Your task to perform on an android device: turn on translation in the chrome app Image 0: 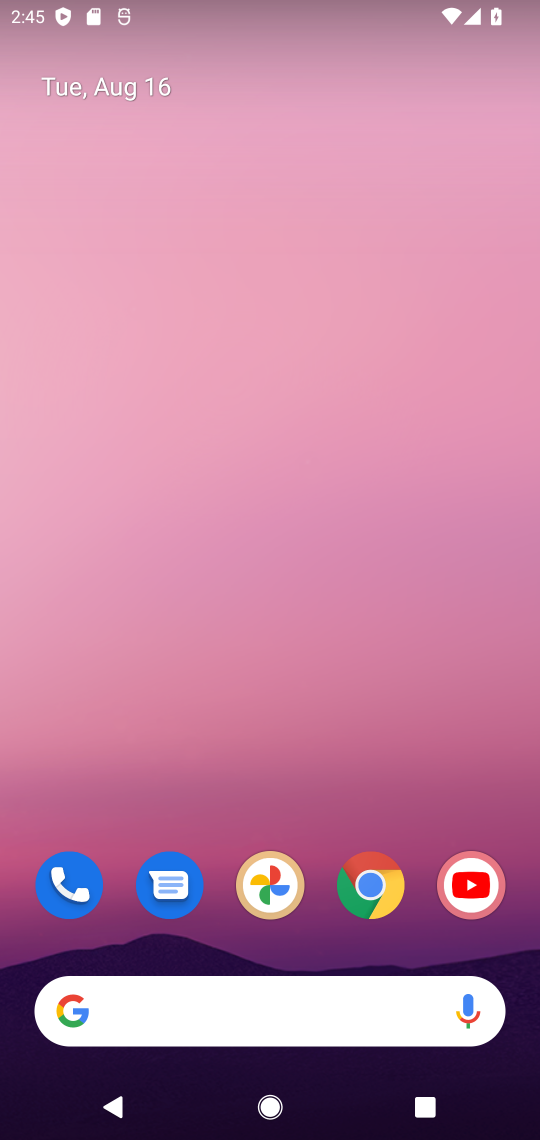
Step 0: drag from (254, 913) to (427, 148)
Your task to perform on an android device: turn on translation in the chrome app Image 1: 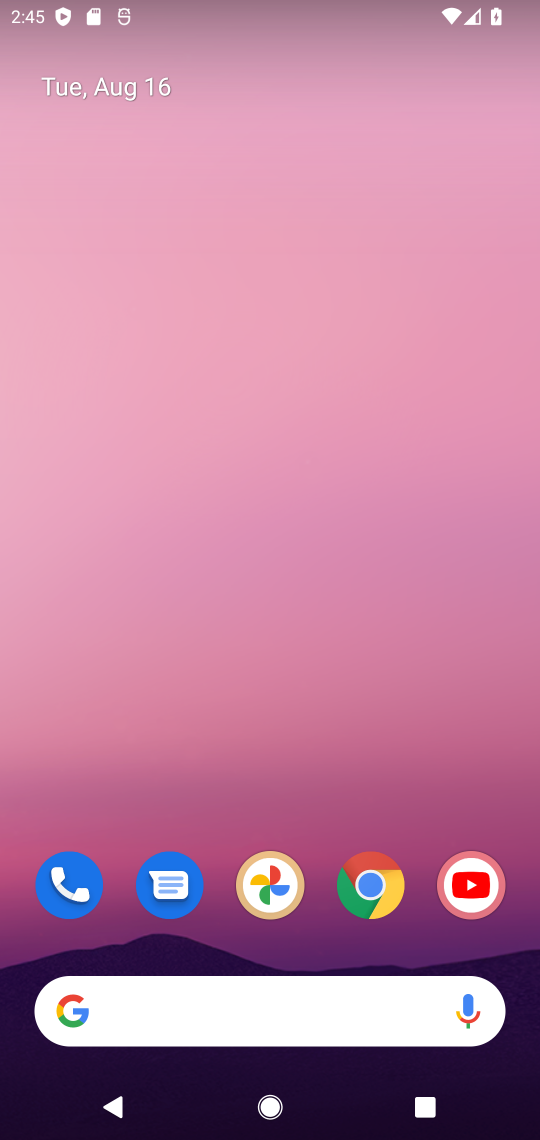
Step 1: drag from (336, 948) to (323, 270)
Your task to perform on an android device: turn on translation in the chrome app Image 2: 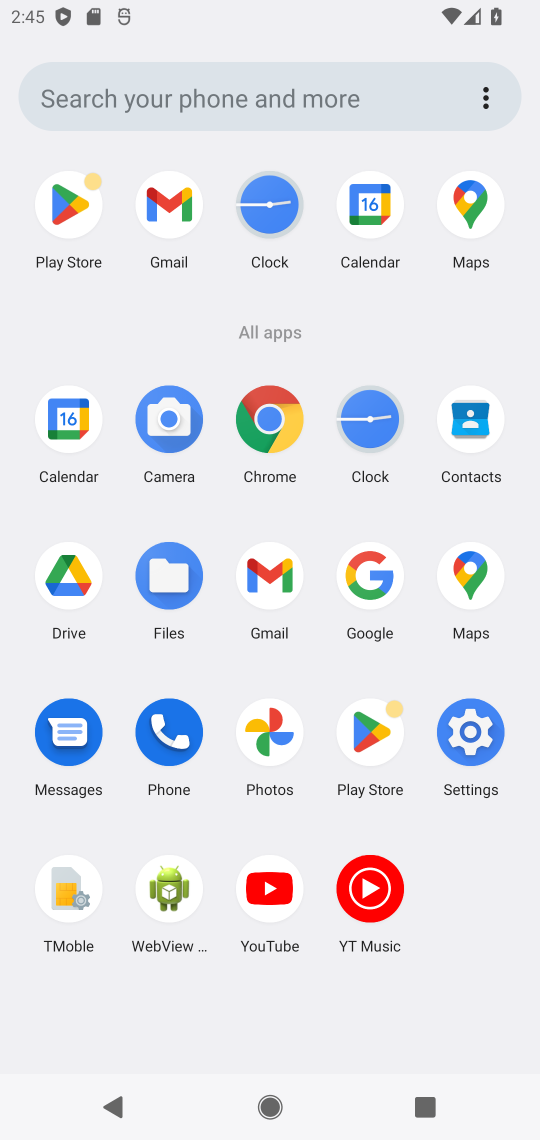
Step 2: click (260, 409)
Your task to perform on an android device: turn on translation in the chrome app Image 3: 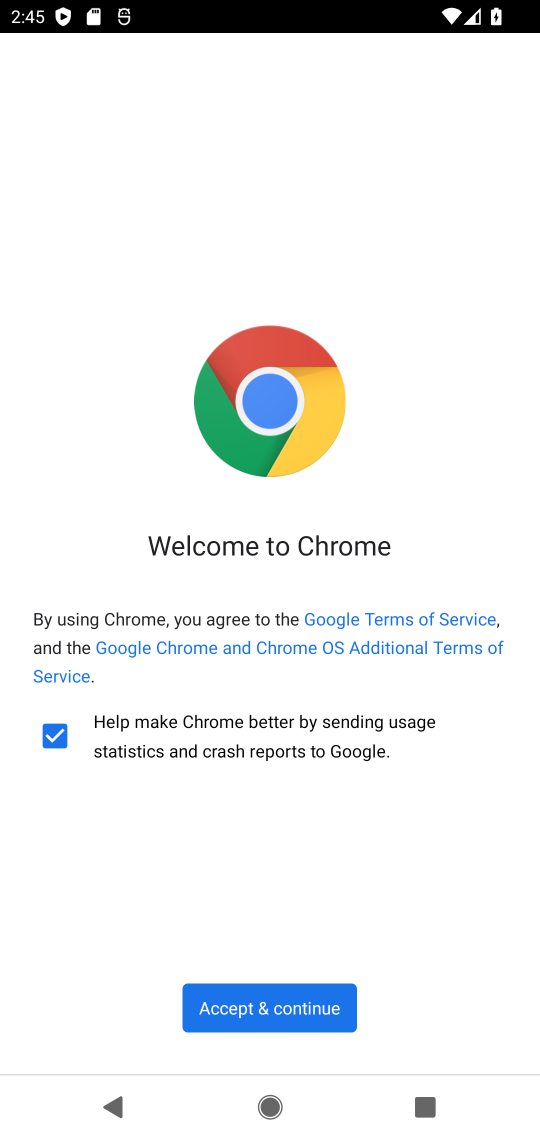
Step 3: click (279, 998)
Your task to perform on an android device: turn on translation in the chrome app Image 4: 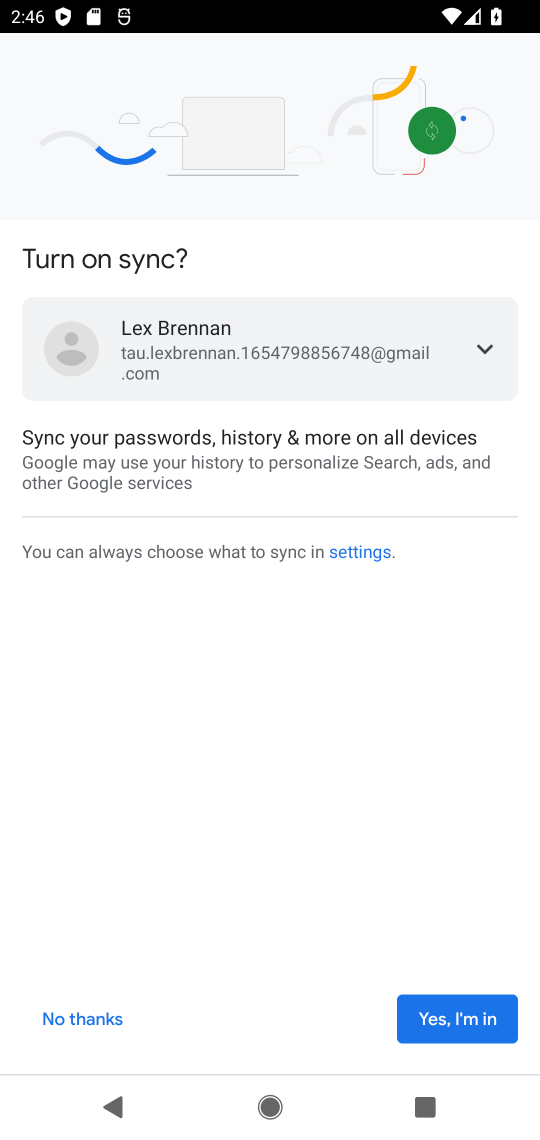
Step 4: click (468, 1004)
Your task to perform on an android device: turn on translation in the chrome app Image 5: 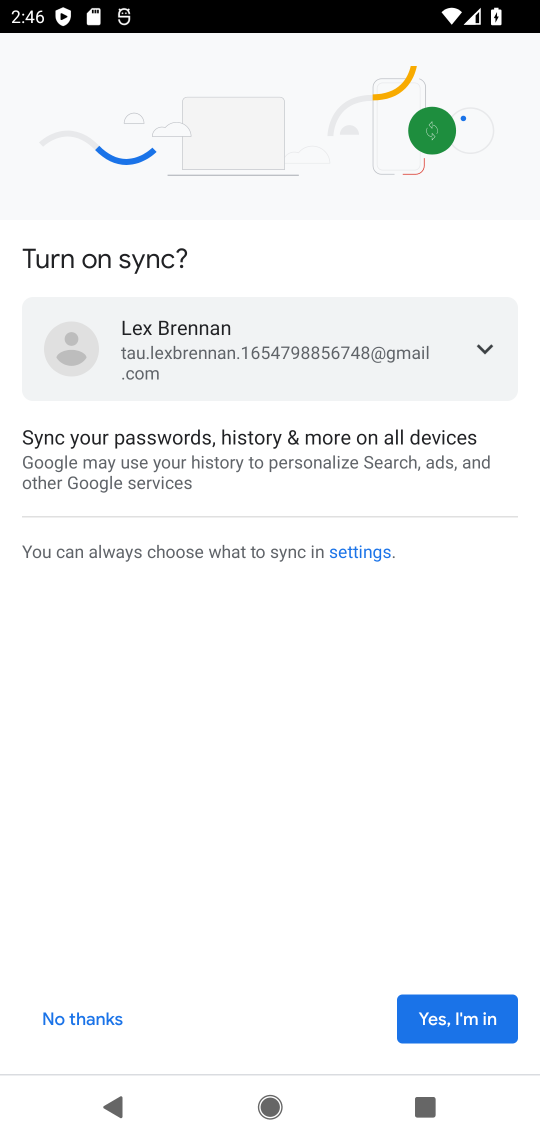
Step 5: click (451, 1019)
Your task to perform on an android device: turn on translation in the chrome app Image 6: 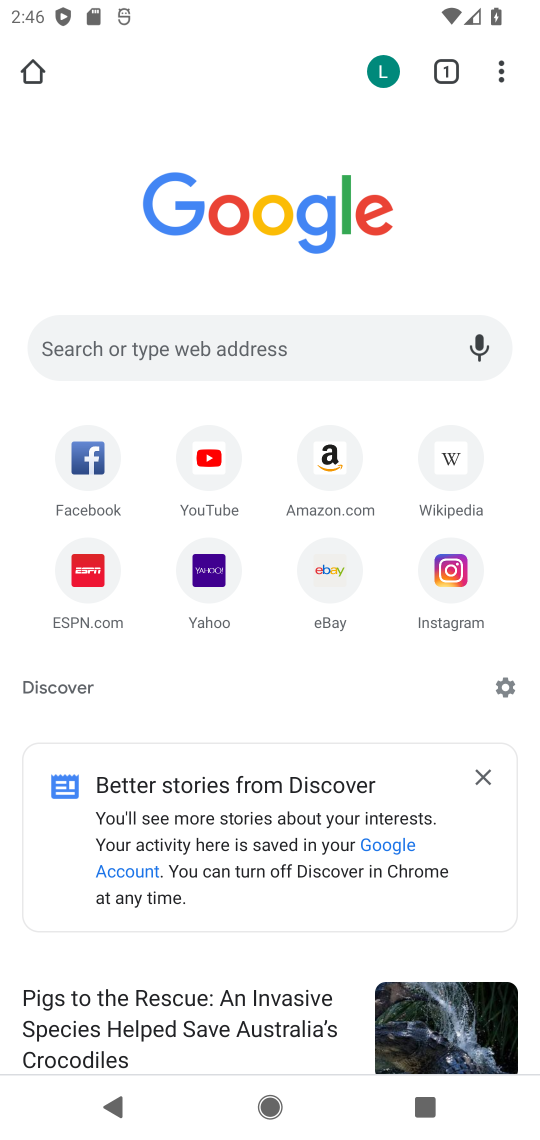
Step 6: click (496, 64)
Your task to perform on an android device: turn on translation in the chrome app Image 7: 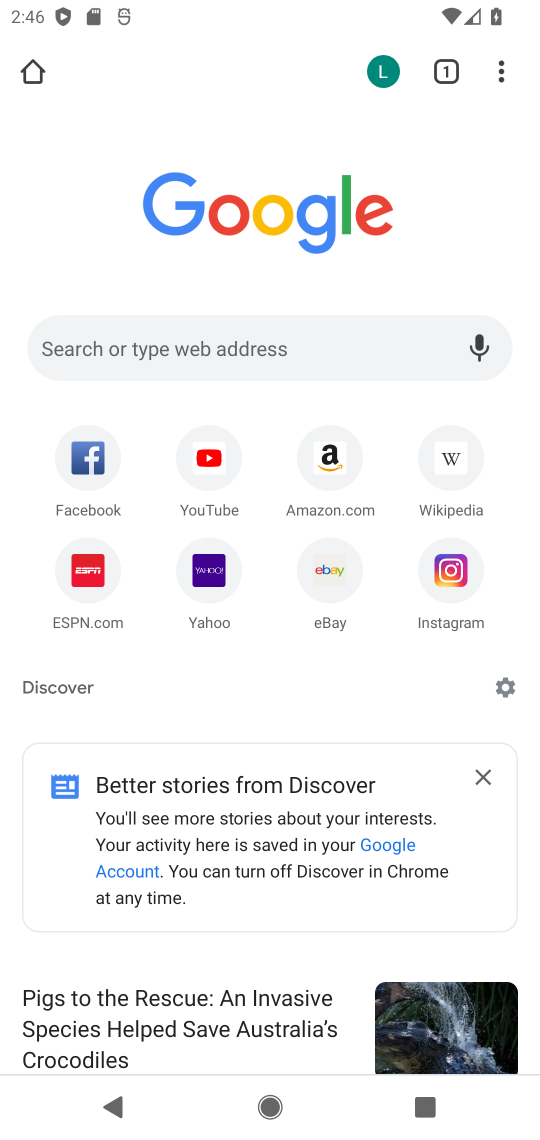
Step 7: click (497, 65)
Your task to perform on an android device: turn on translation in the chrome app Image 8: 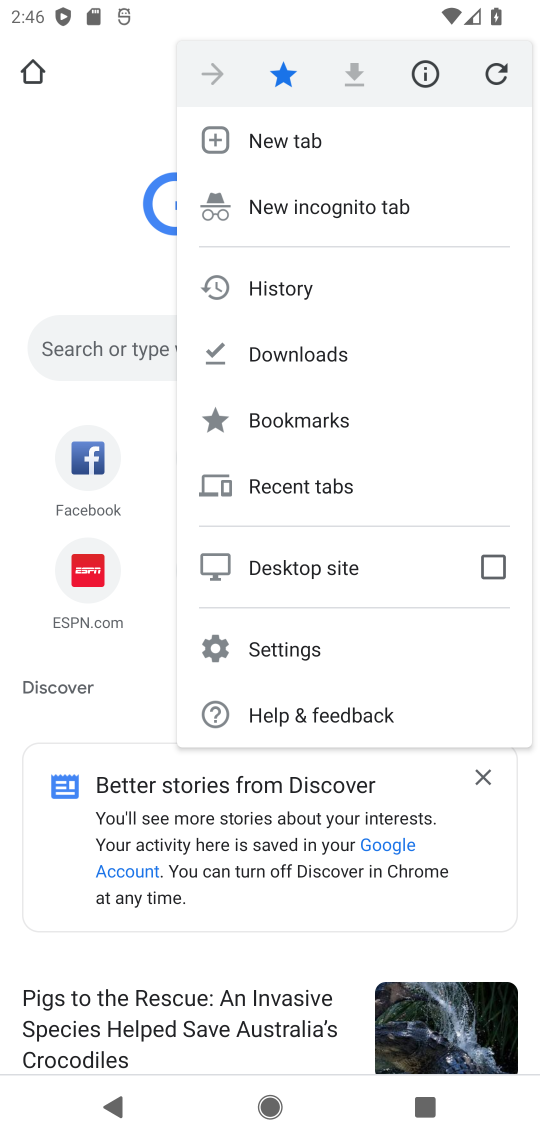
Step 8: click (292, 636)
Your task to perform on an android device: turn on translation in the chrome app Image 9: 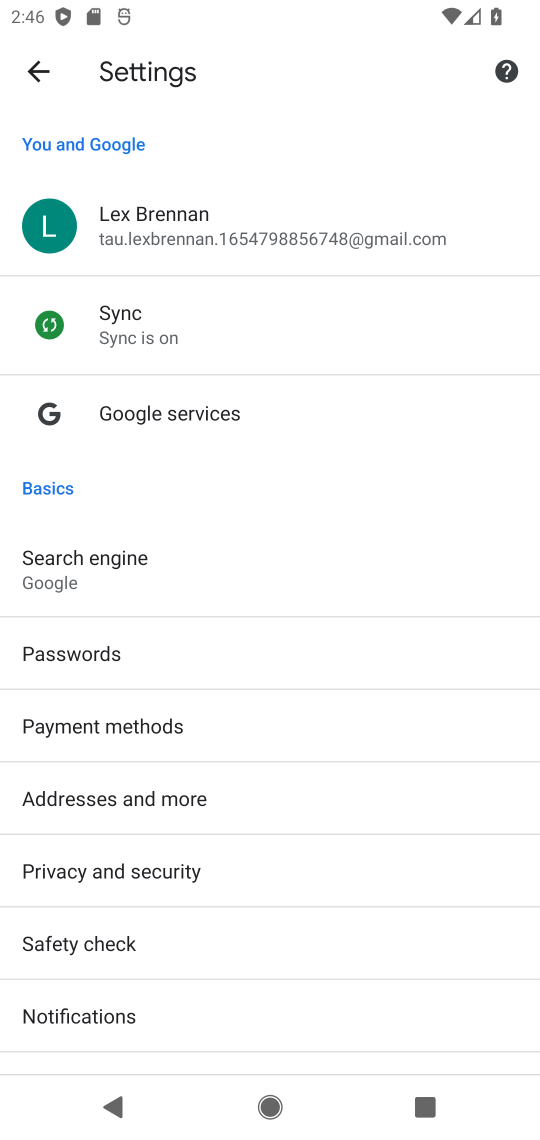
Step 9: drag from (117, 1003) to (537, 376)
Your task to perform on an android device: turn on translation in the chrome app Image 10: 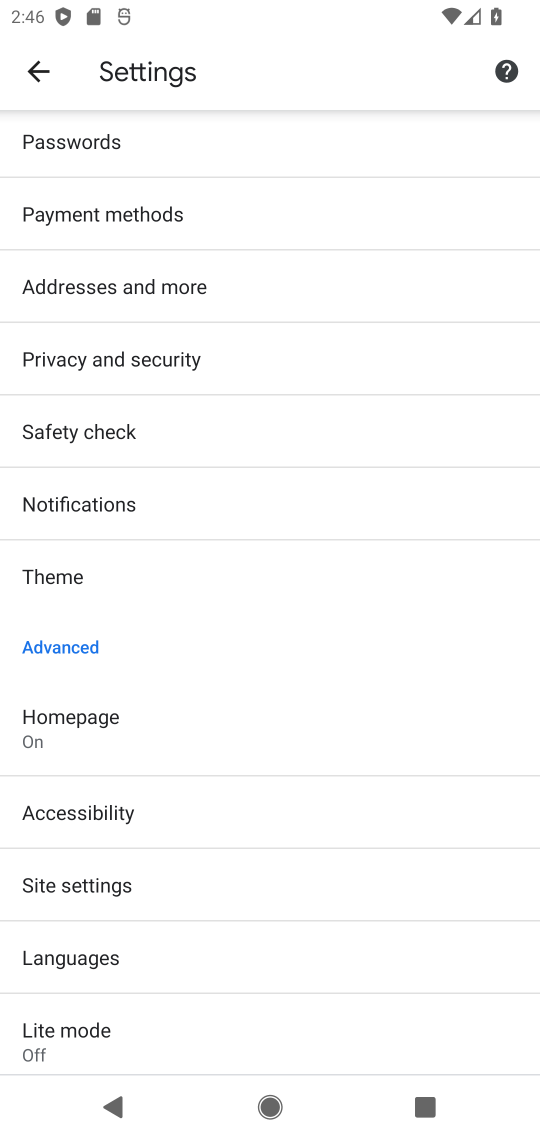
Step 10: drag from (158, 878) to (209, 500)
Your task to perform on an android device: turn on translation in the chrome app Image 11: 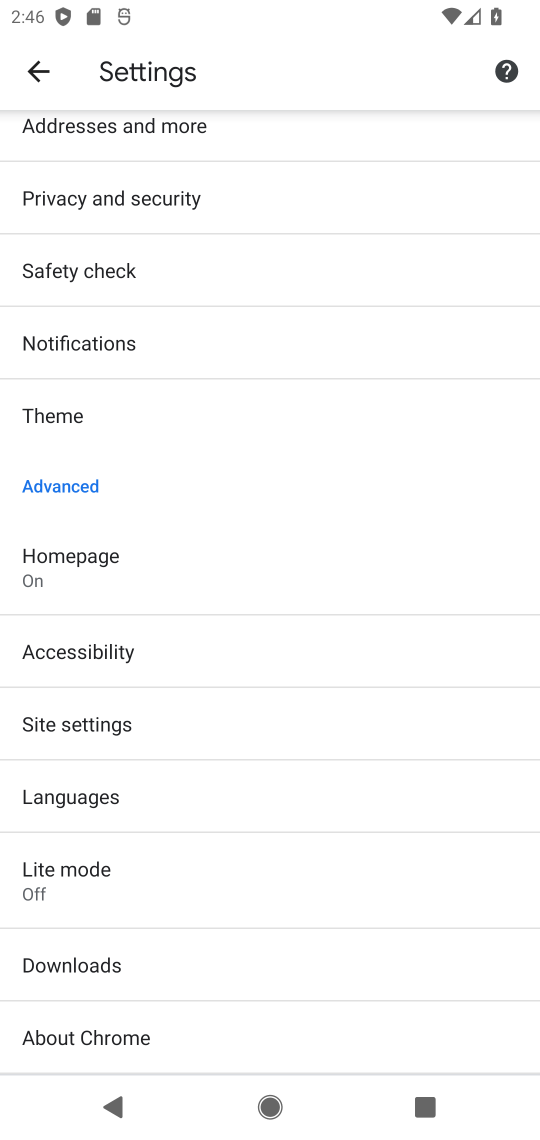
Step 11: click (151, 780)
Your task to perform on an android device: turn on translation in the chrome app Image 12: 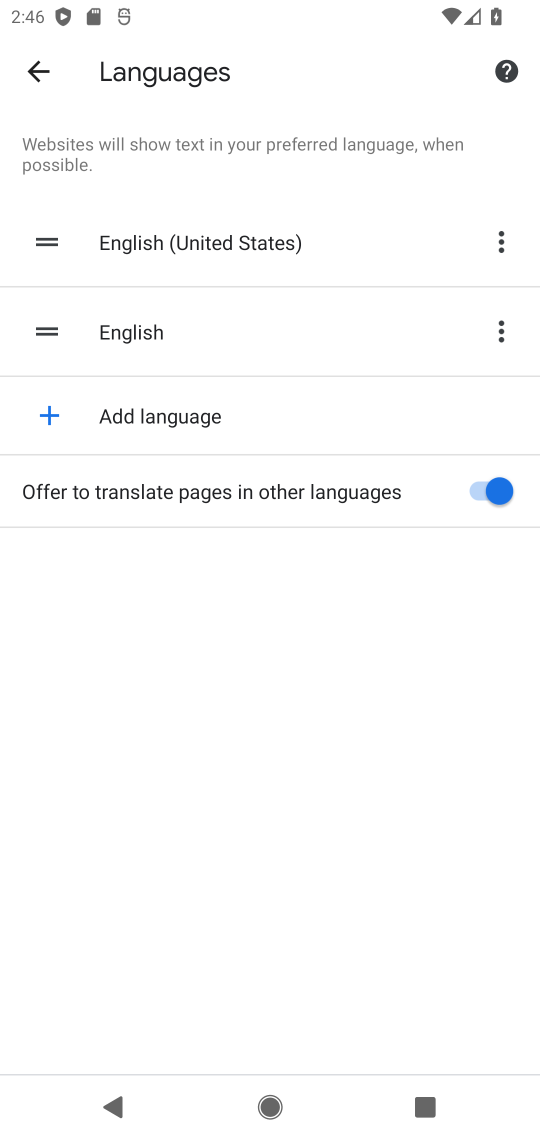
Step 12: click (486, 479)
Your task to perform on an android device: turn on translation in the chrome app Image 13: 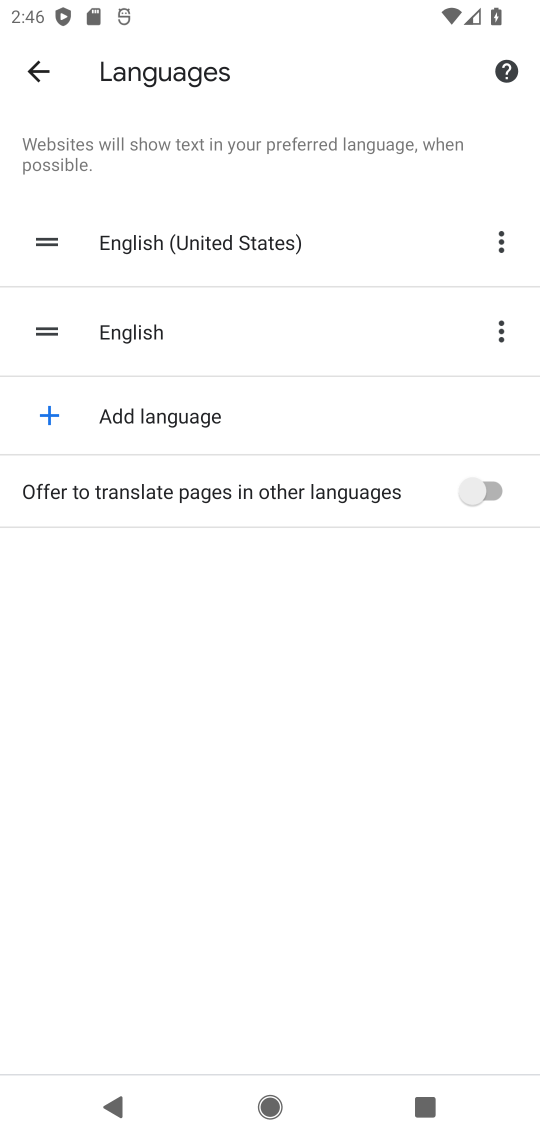
Step 13: click (486, 479)
Your task to perform on an android device: turn on translation in the chrome app Image 14: 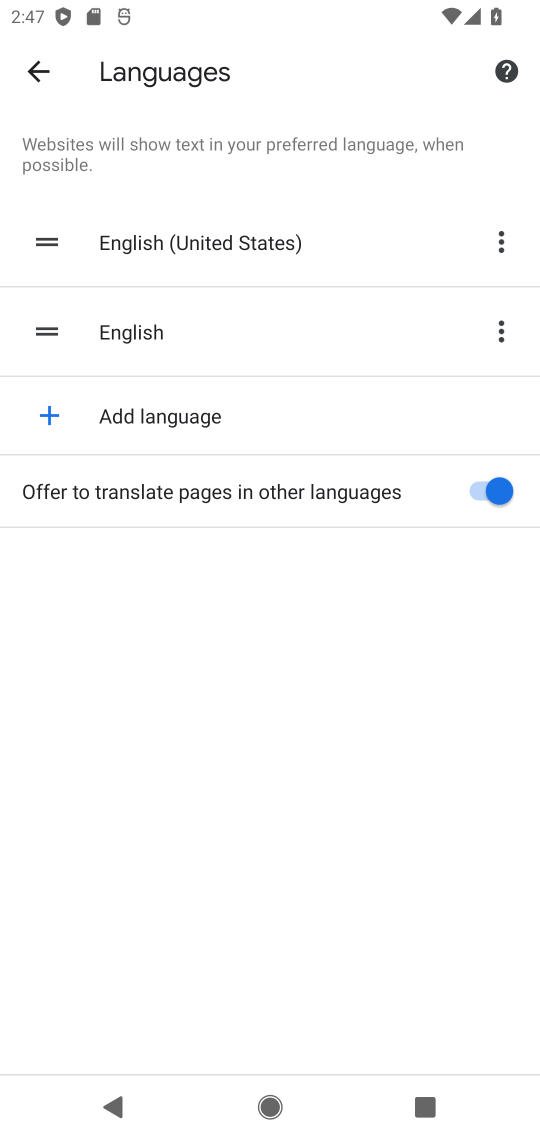
Step 14: task complete